Your task to perform on an android device: Open the web browser Image 0: 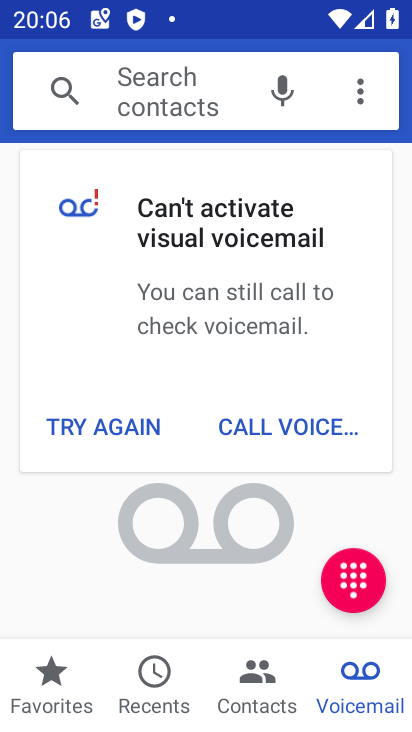
Step 0: press home button
Your task to perform on an android device: Open the web browser Image 1: 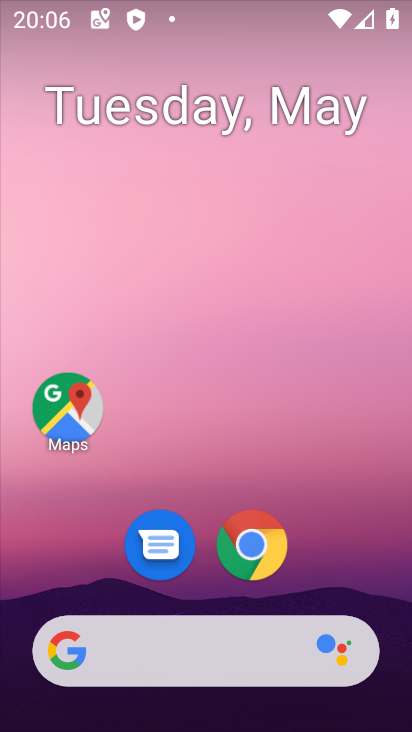
Step 1: click (270, 544)
Your task to perform on an android device: Open the web browser Image 2: 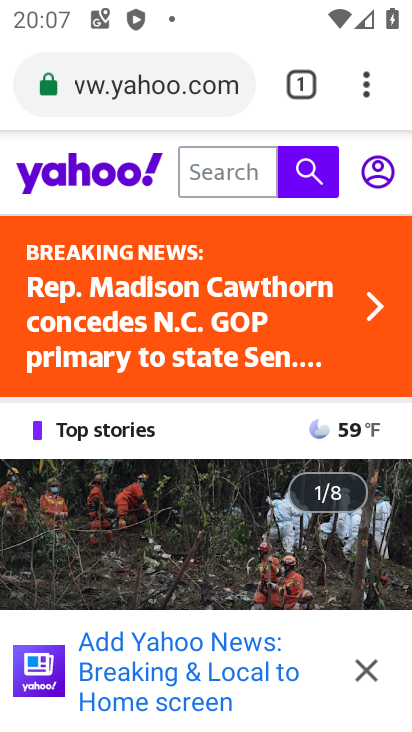
Step 2: task complete